Your task to perform on an android device: turn on data saver in the chrome app Image 0: 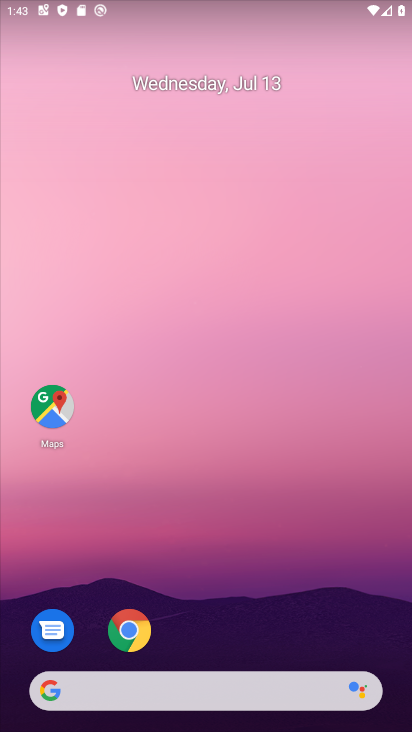
Step 0: drag from (325, 648) to (362, 89)
Your task to perform on an android device: turn on data saver in the chrome app Image 1: 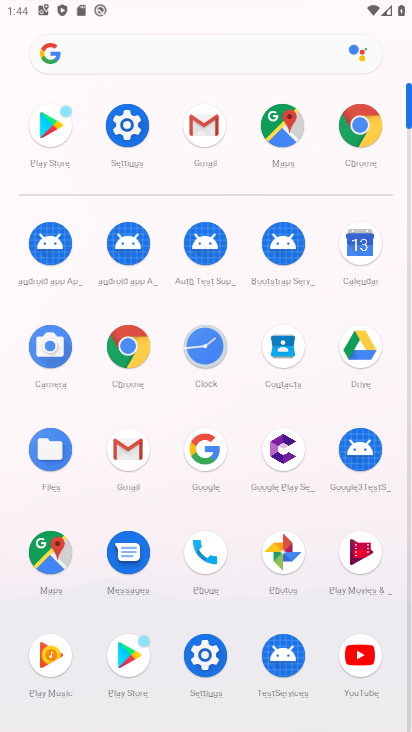
Step 1: click (123, 342)
Your task to perform on an android device: turn on data saver in the chrome app Image 2: 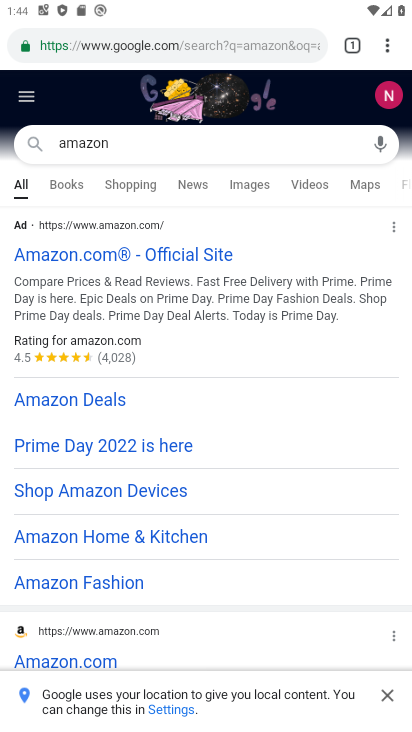
Step 2: click (387, 45)
Your task to perform on an android device: turn on data saver in the chrome app Image 3: 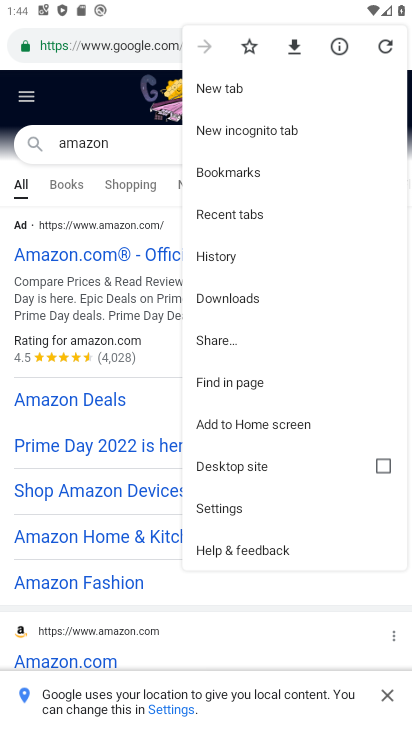
Step 3: click (263, 510)
Your task to perform on an android device: turn on data saver in the chrome app Image 4: 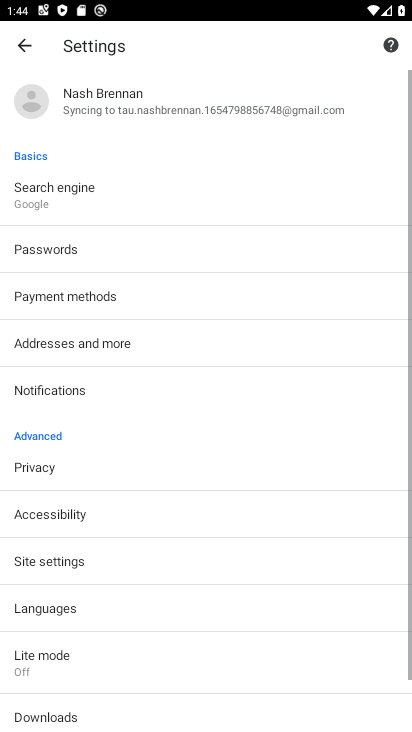
Step 4: drag from (311, 466) to (323, 355)
Your task to perform on an android device: turn on data saver in the chrome app Image 5: 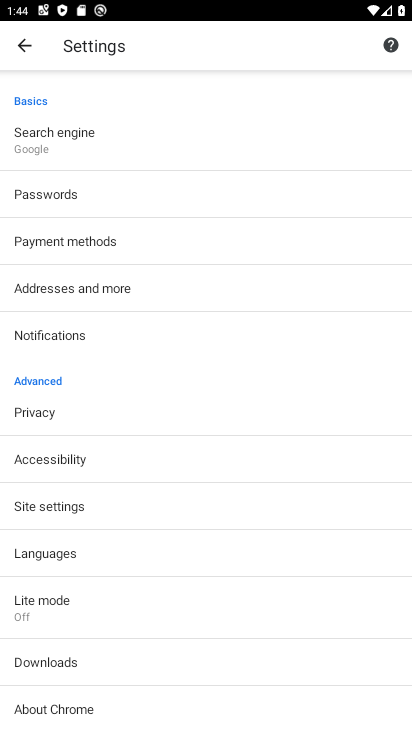
Step 5: drag from (323, 502) to (337, 304)
Your task to perform on an android device: turn on data saver in the chrome app Image 6: 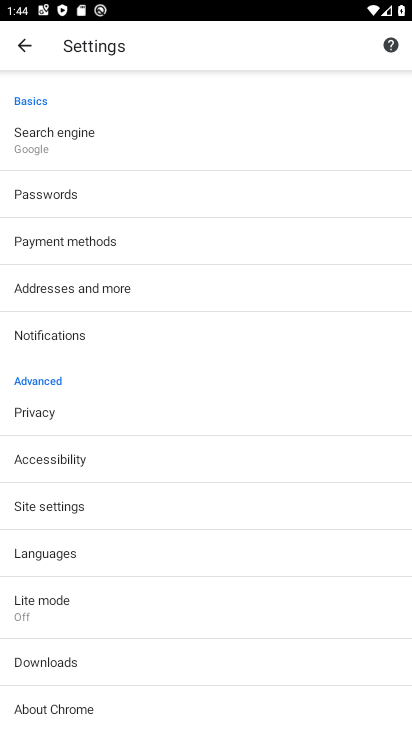
Step 6: drag from (342, 207) to (328, 362)
Your task to perform on an android device: turn on data saver in the chrome app Image 7: 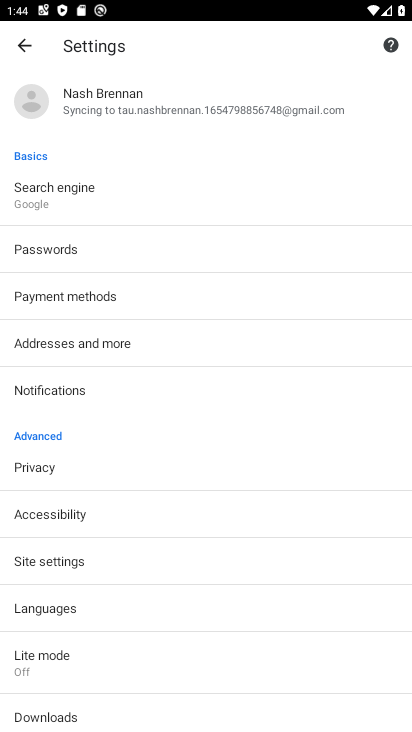
Step 7: drag from (327, 465) to (332, 339)
Your task to perform on an android device: turn on data saver in the chrome app Image 8: 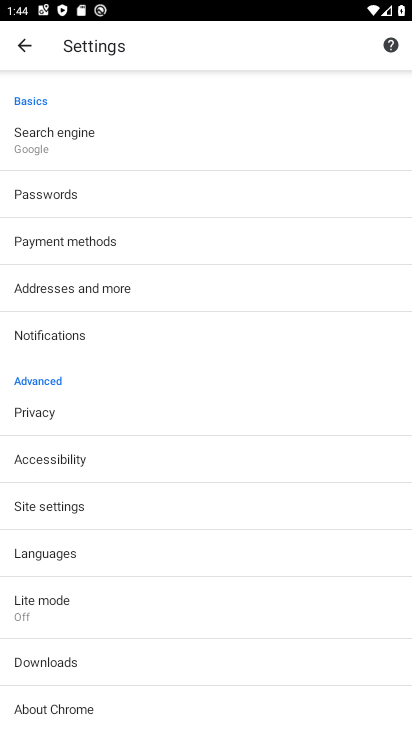
Step 8: click (258, 606)
Your task to perform on an android device: turn on data saver in the chrome app Image 9: 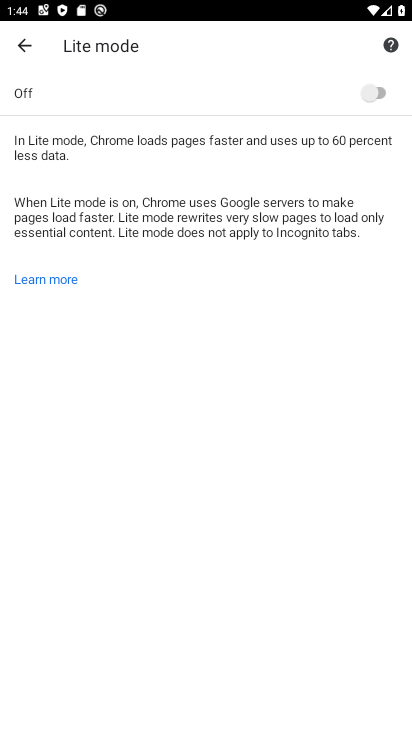
Step 9: click (380, 95)
Your task to perform on an android device: turn on data saver in the chrome app Image 10: 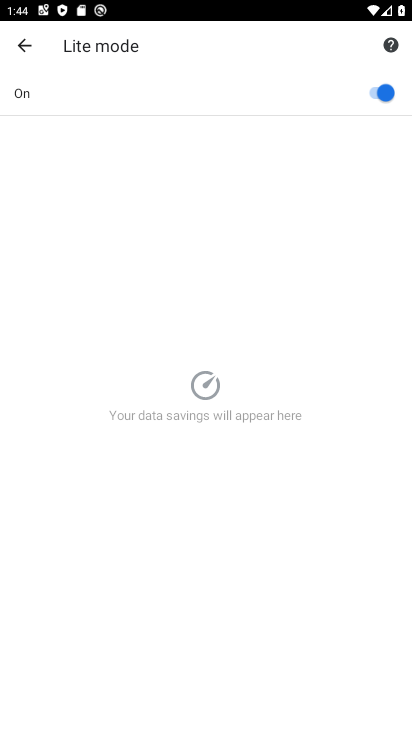
Step 10: task complete